Your task to perform on an android device: Open Google Image 0: 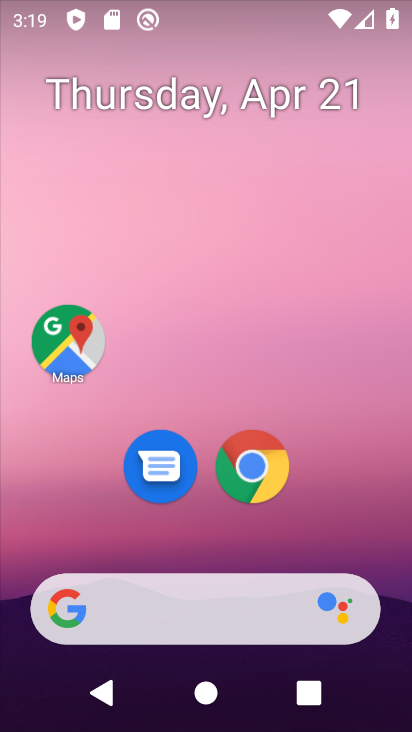
Step 0: drag from (188, 551) to (214, 179)
Your task to perform on an android device: Open Google Image 1: 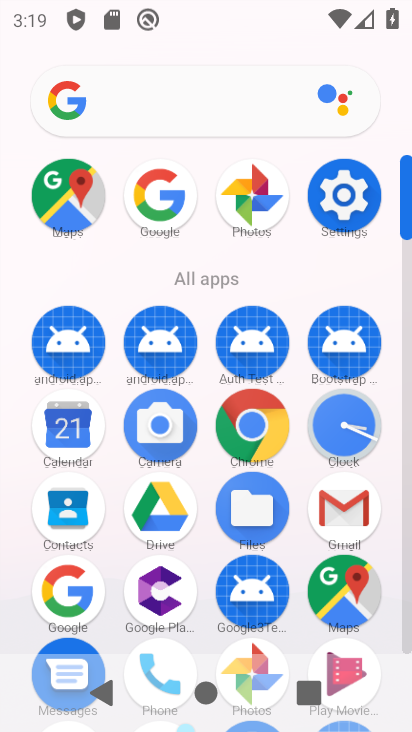
Step 1: click (170, 203)
Your task to perform on an android device: Open Google Image 2: 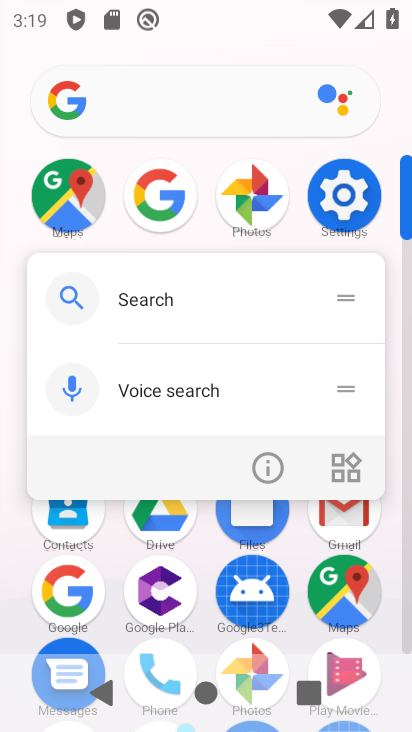
Step 2: click (170, 203)
Your task to perform on an android device: Open Google Image 3: 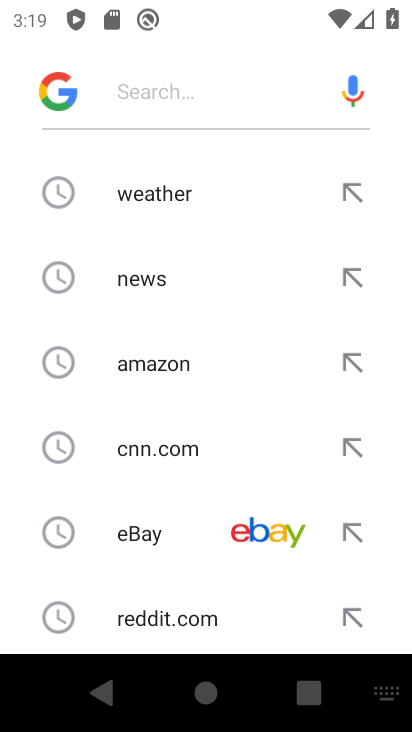
Step 3: click (60, 99)
Your task to perform on an android device: Open Google Image 4: 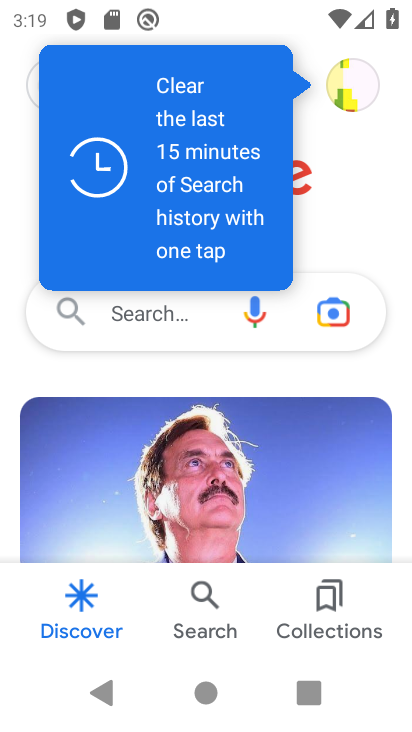
Step 4: task complete